Your task to perform on an android device: turn off notifications in google photos Image 0: 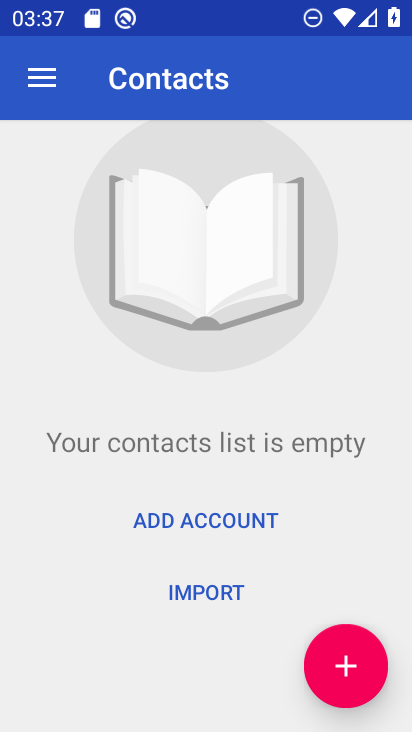
Step 0: press home button
Your task to perform on an android device: turn off notifications in google photos Image 1: 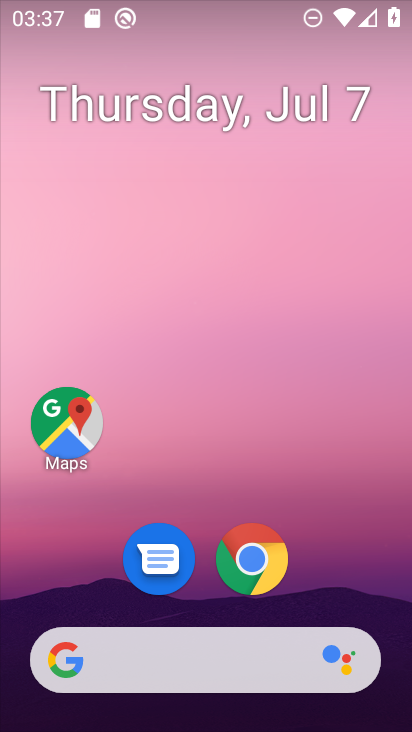
Step 1: drag from (365, 565) to (341, 97)
Your task to perform on an android device: turn off notifications in google photos Image 2: 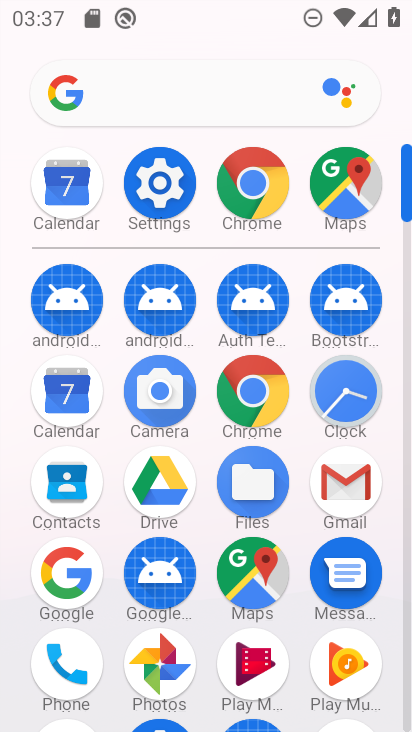
Step 2: drag from (383, 523) to (385, 284)
Your task to perform on an android device: turn off notifications in google photos Image 3: 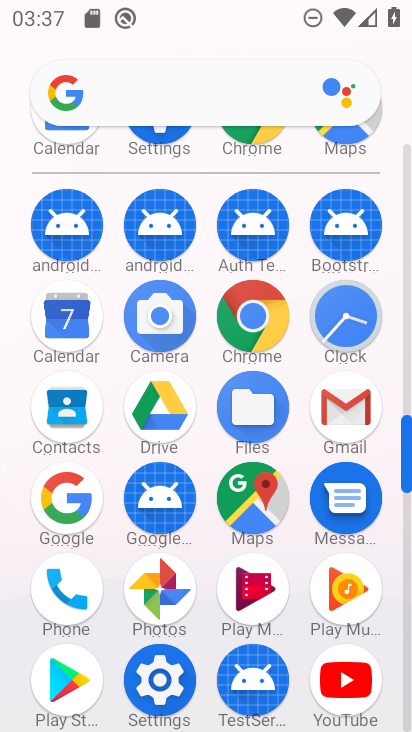
Step 3: click (162, 591)
Your task to perform on an android device: turn off notifications in google photos Image 4: 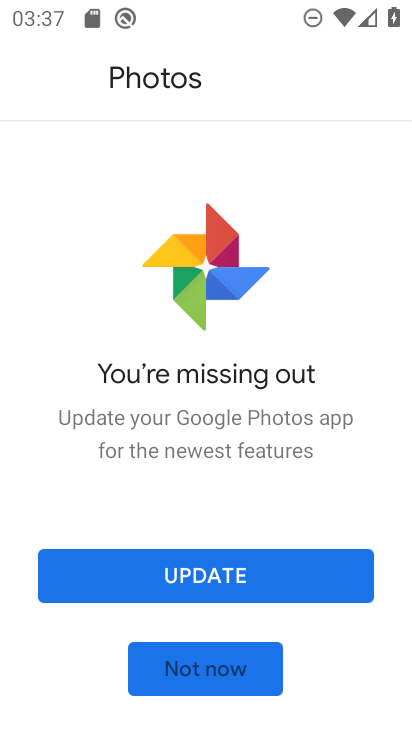
Step 4: click (236, 538)
Your task to perform on an android device: turn off notifications in google photos Image 5: 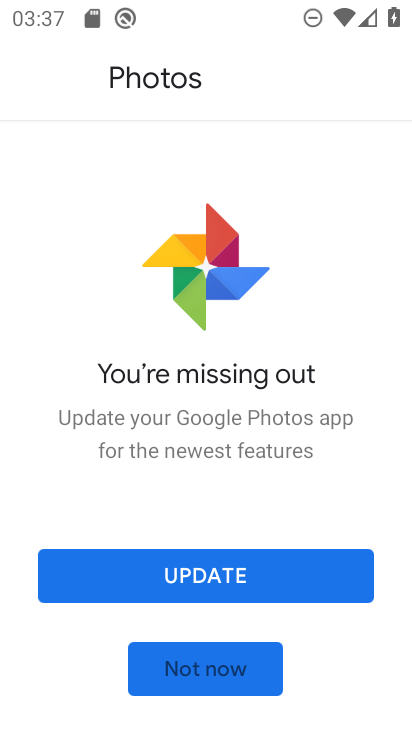
Step 5: click (212, 567)
Your task to perform on an android device: turn off notifications in google photos Image 6: 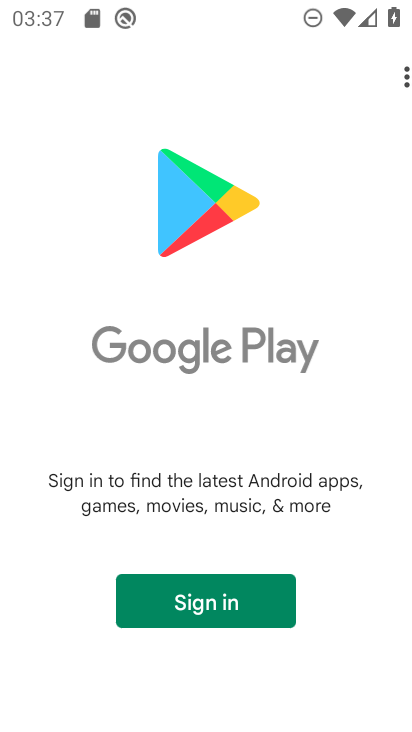
Step 6: task complete